Your task to perform on an android device: Open Google Image 0: 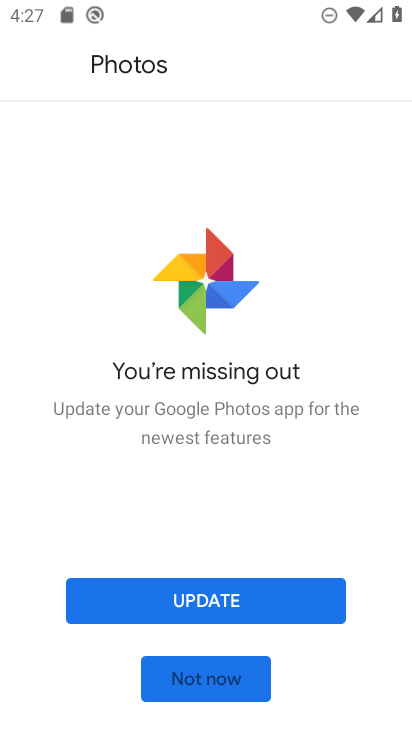
Step 0: press home button
Your task to perform on an android device: Open Google Image 1: 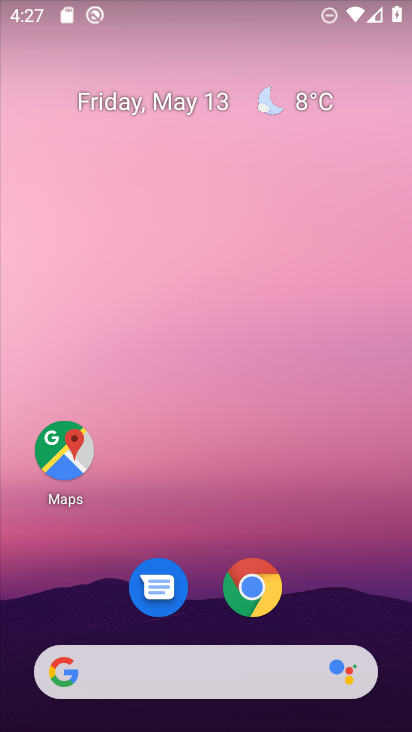
Step 1: drag from (201, 631) to (179, 106)
Your task to perform on an android device: Open Google Image 2: 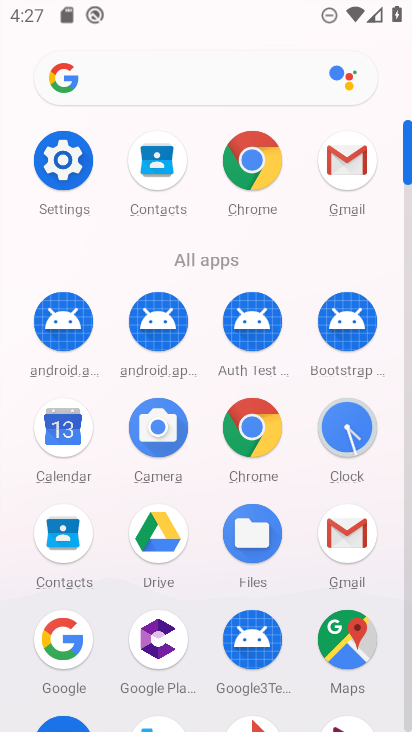
Step 2: click (78, 624)
Your task to perform on an android device: Open Google Image 3: 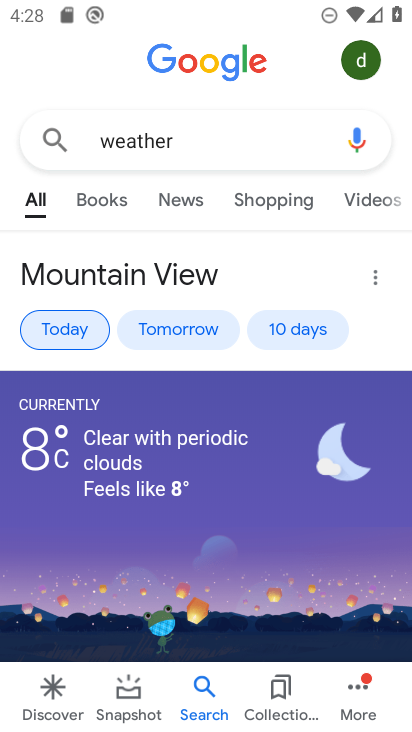
Step 3: task complete